Your task to perform on an android device: open device folders in google photos Image 0: 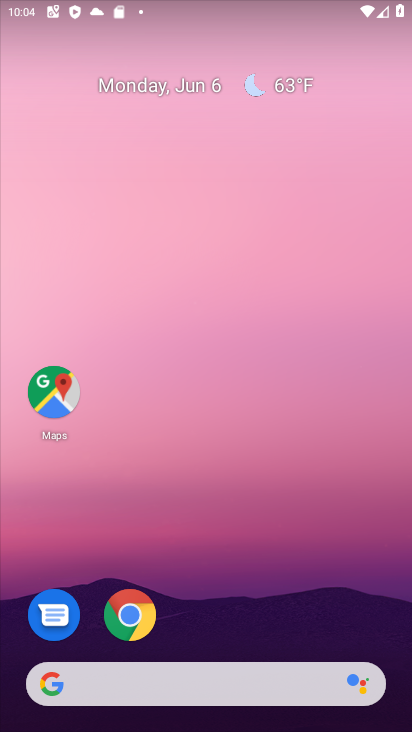
Step 0: drag from (201, 610) to (306, 10)
Your task to perform on an android device: open device folders in google photos Image 1: 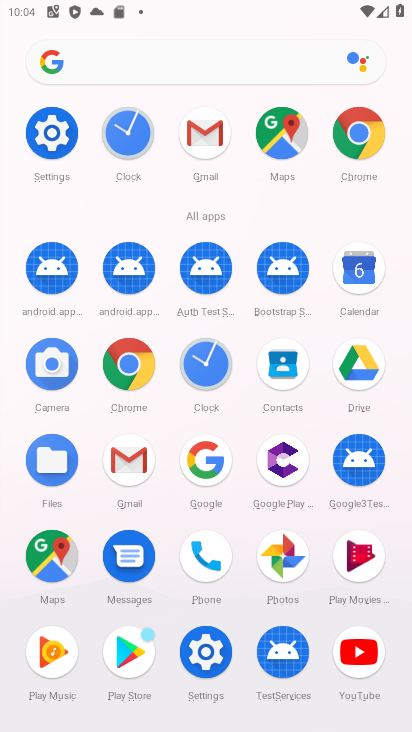
Step 1: click (270, 558)
Your task to perform on an android device: open device folders in google photos Image 2: 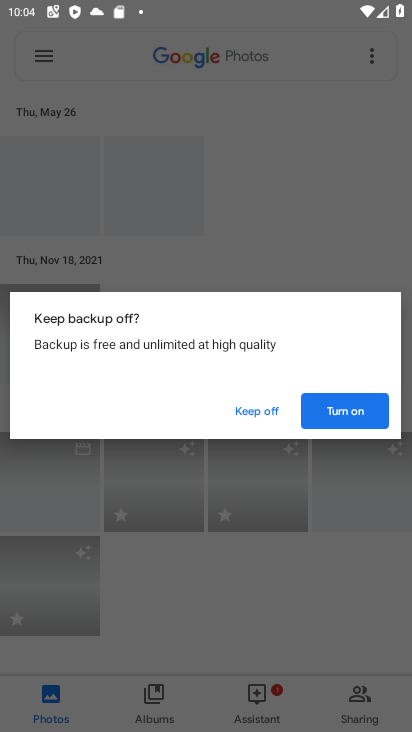
Step 2: click (259, 406)
Your task to perform on an android device: open device folders in google photos Image 3: 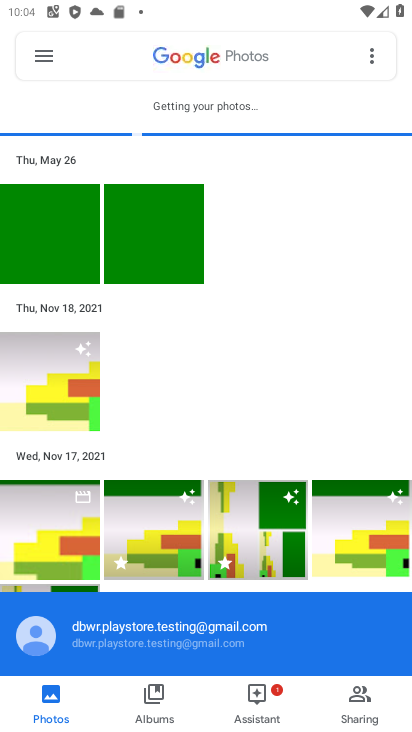
Step 3: click (17, 56)
Your task to perform on an android device: open device folders in google photos Image 4: 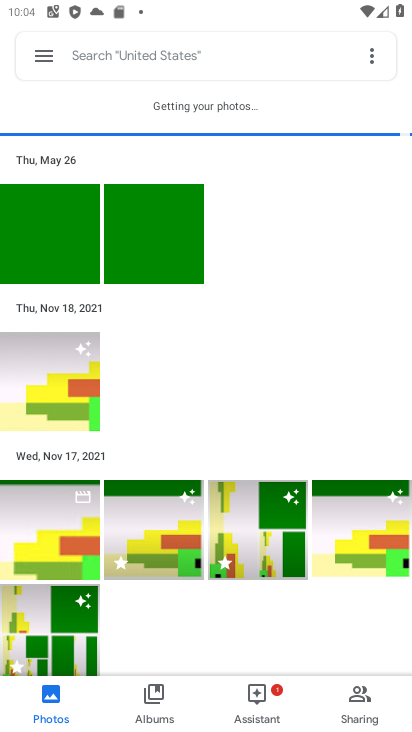
Step 4: click (44, 53)
Your task to perform on an android device: open device folders in google photos Image 5: 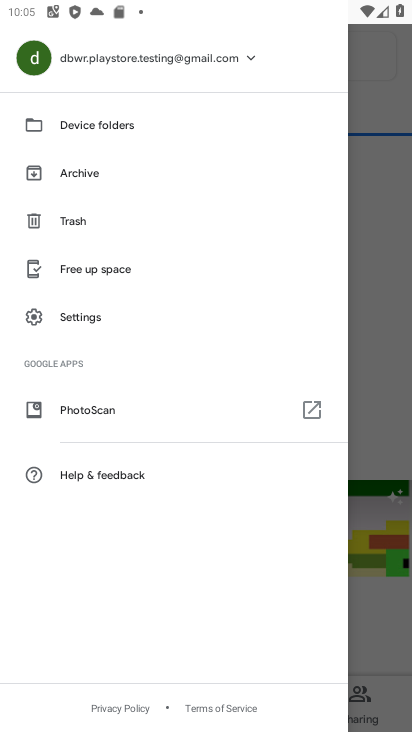
Step 5: click (107, 123)
Your task to perform on an android device: open device folders in google photos Image 6: 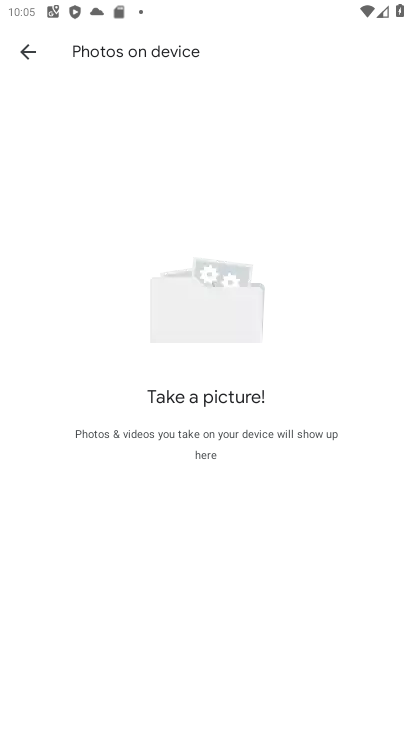
Step 6: task complete